Your task to perform on an android device: Search for a storage ottoman in the living room Image 0: 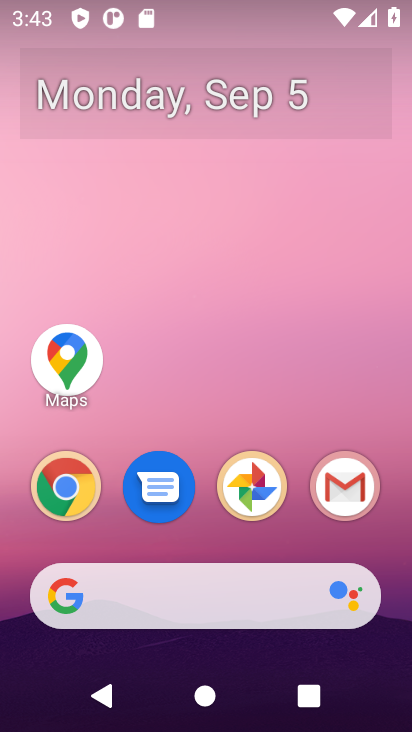
Step 0: drag from (214, 460) to (329, 35)
Your task to perform on an android device: Search for a storage ottoman in the living room Image 1: 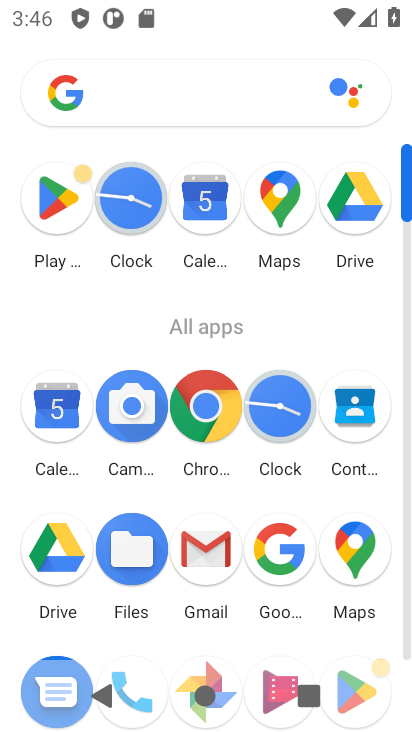
Step 1: click (198, 409)
Your task to perform on an android device: Search for a storage ottoman in the living room Image 2: 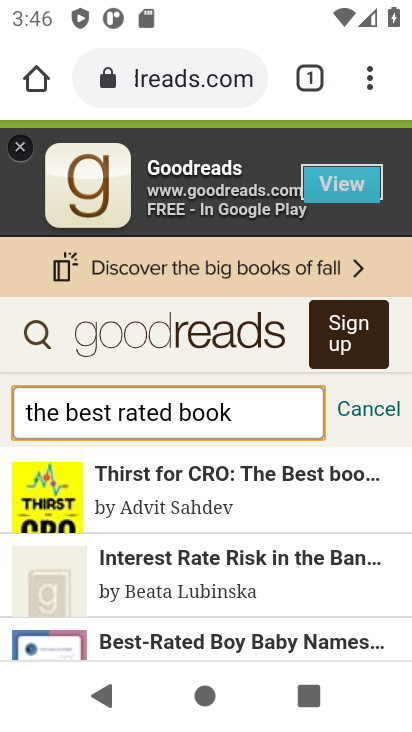
Step 2: click (216, 76)
Your task to perform on an android device: Search for a storage ottoman in the living room Image 3: 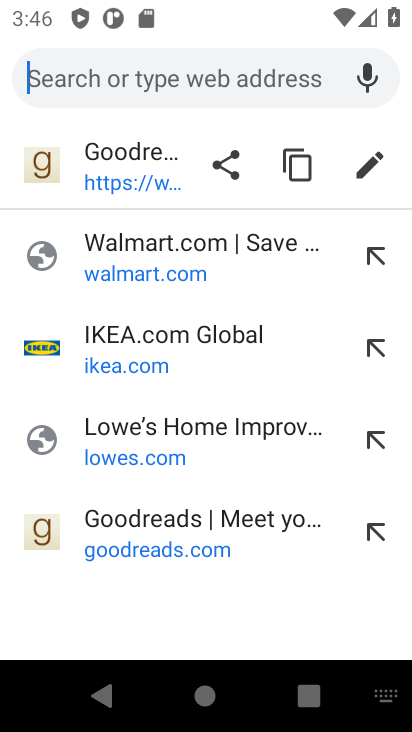
Step 3: type "storage ottoman in the living room"
Your task to perform on an android device: Search for a storage ottoman in the living room Image 4: 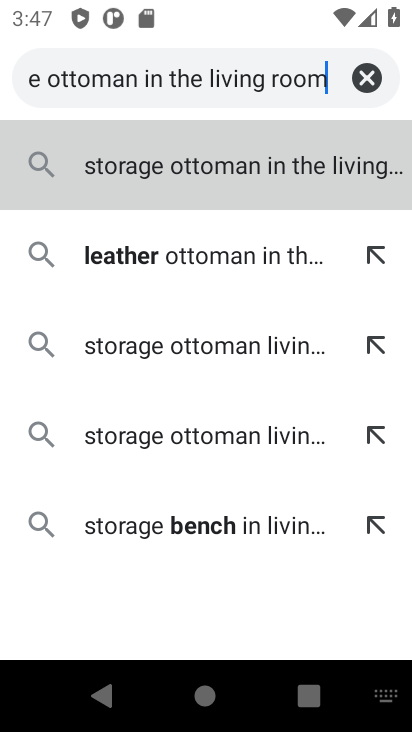
Step 4: click (205, 159)
Your task to perform on an android device: Search for a storage ottoman in the living room Image 5: 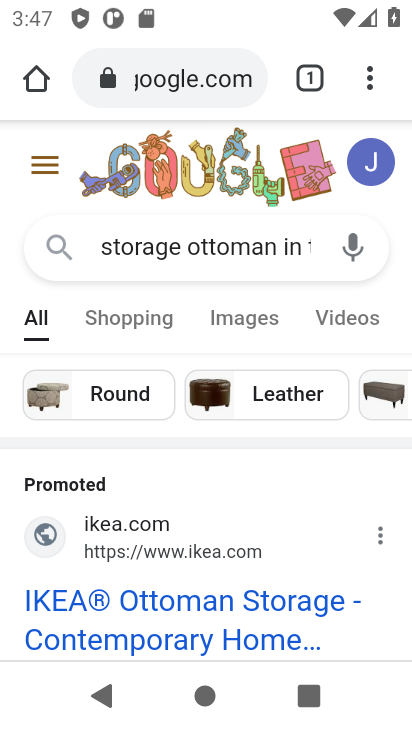
Step 5: task complete